Your task to perform on an android device: stop showing notifications on the lock screen Image 0: 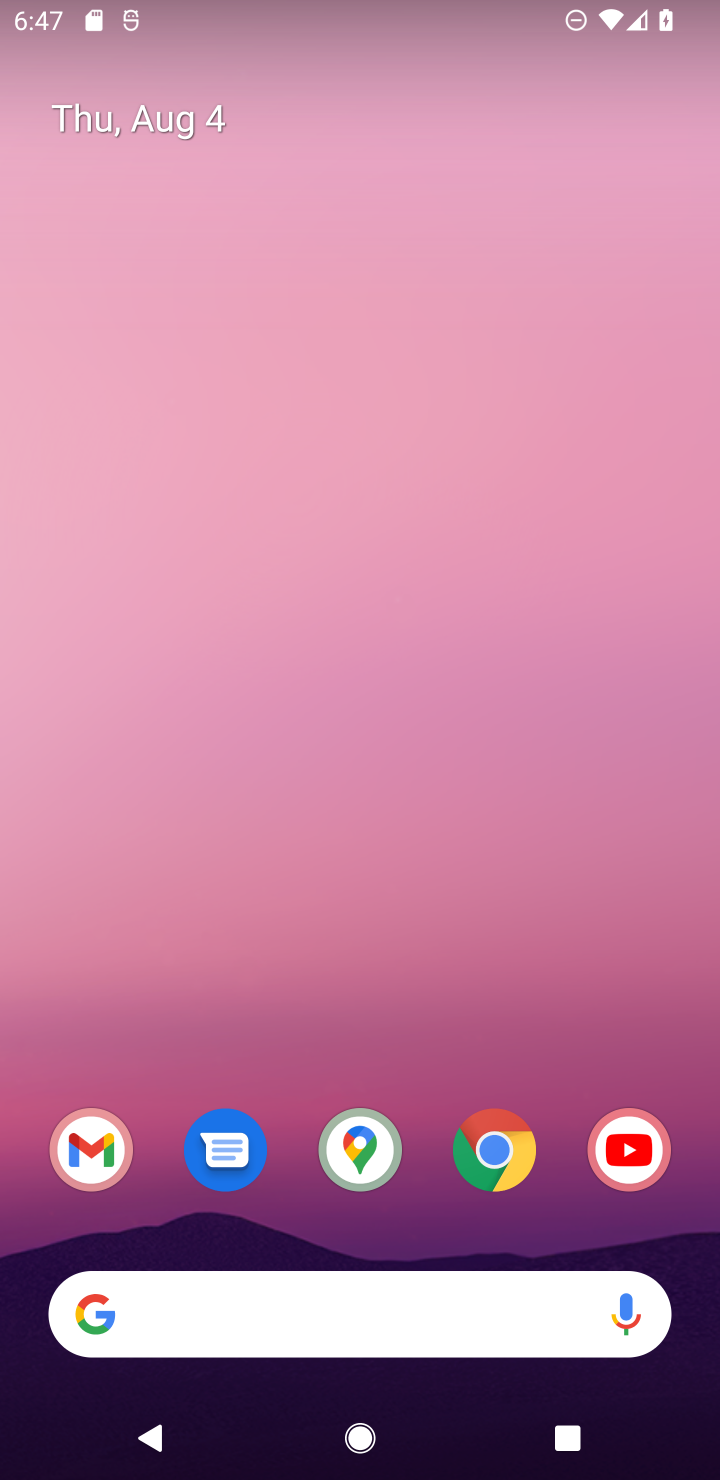
Step 0: drag from (394, 1207) to (390, 5)
Your task to perform on an android device: stop showing notifications on the lock screen Image 1: 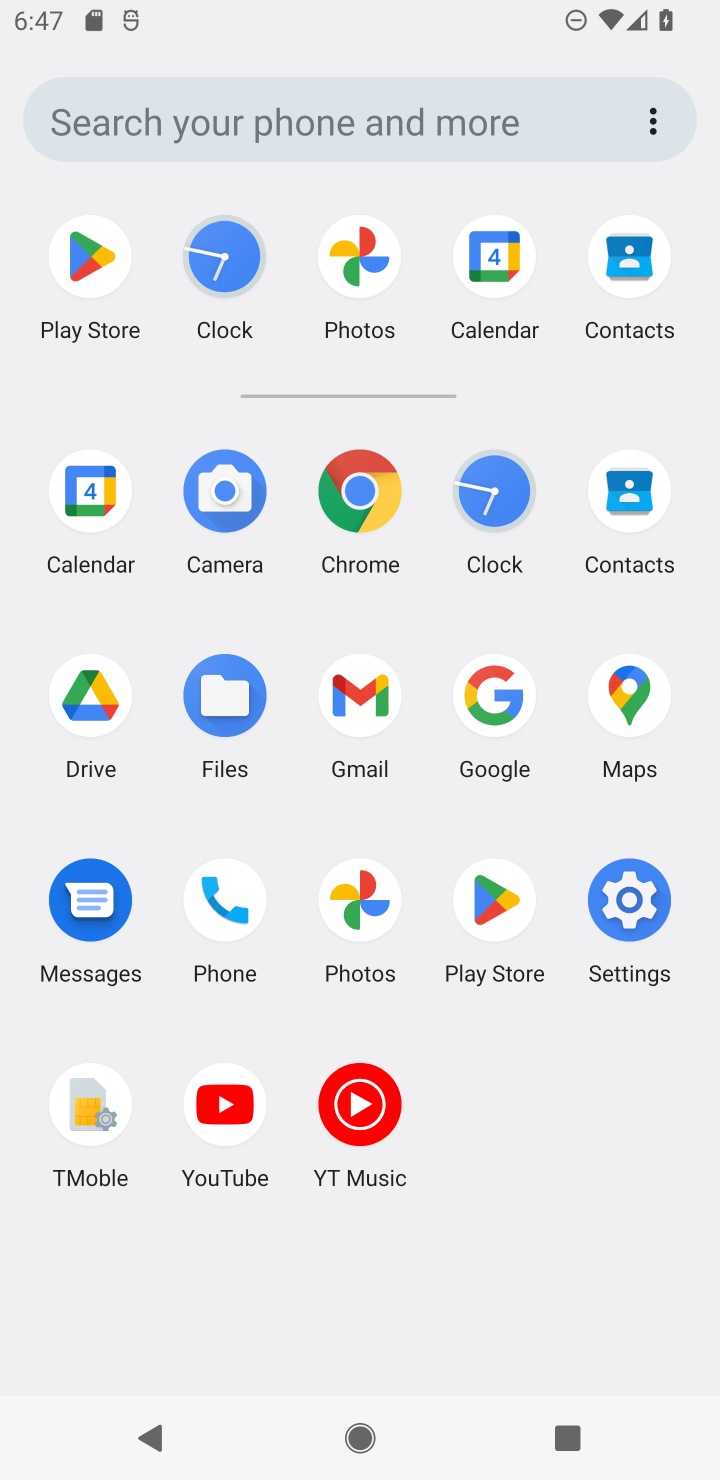
Step 1: click (632, 902)
Your task to perform on an android device: stop showing notifications on the lock screen Image 2: 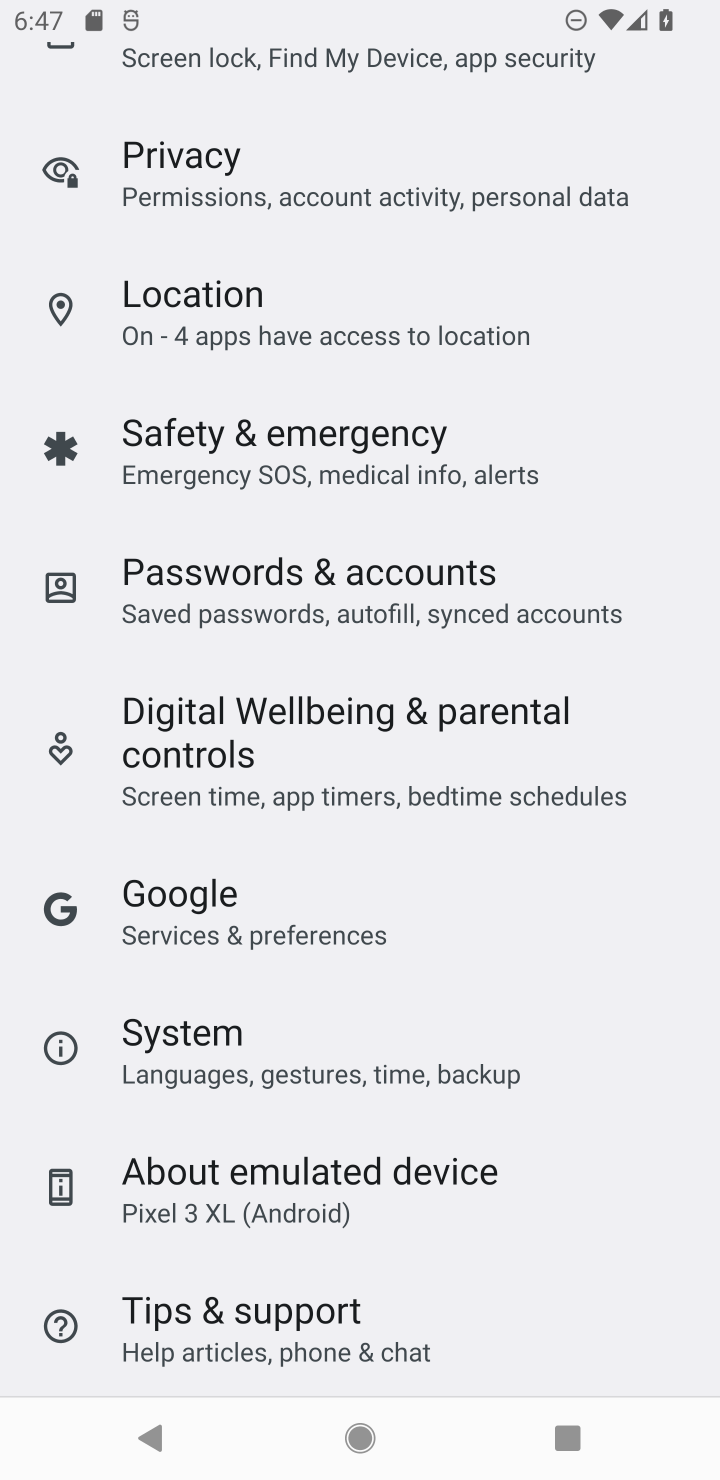
Step 2: drag from (332, 250) to (322, 1384)
Your task to perform on an android device: stop showing notifications on the lock screen Image 3: 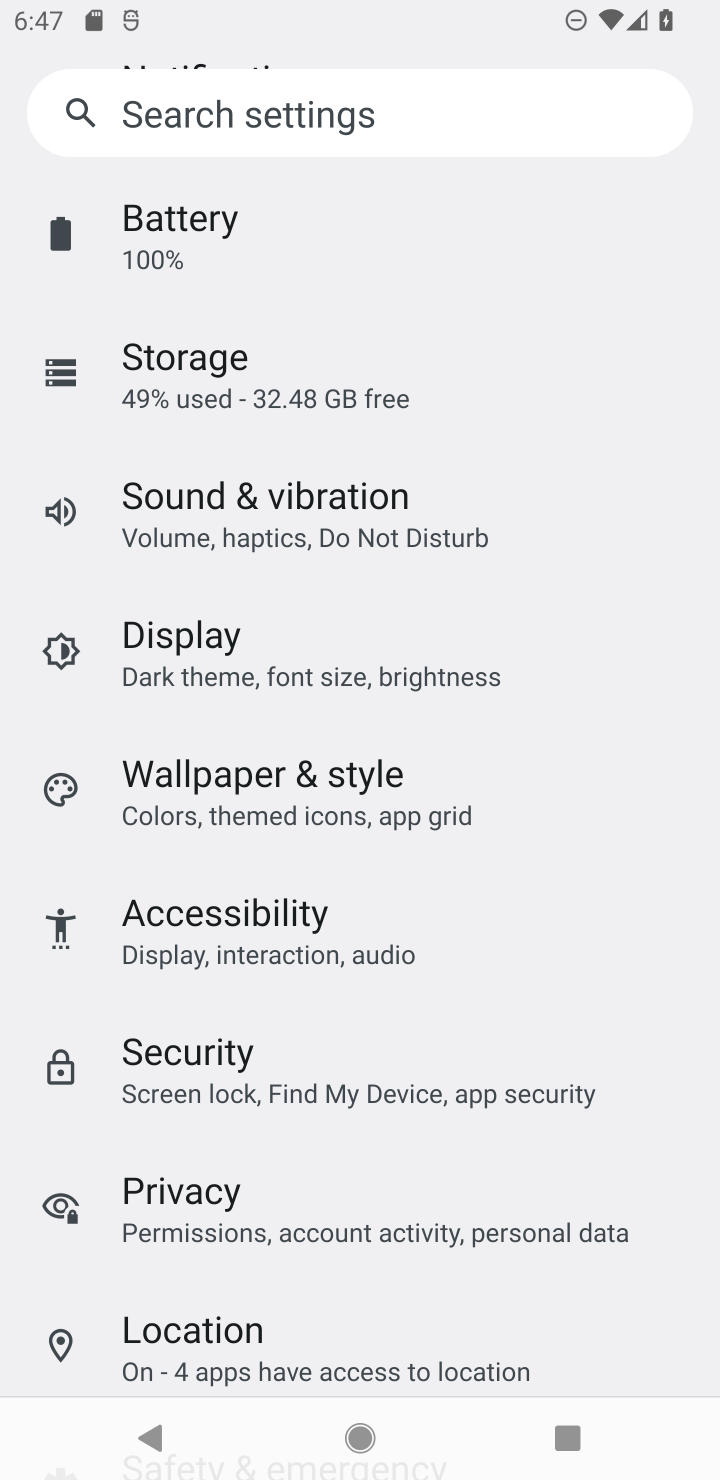
Step 3: drag from (367, 380) to (415, 1290)
Your task to perform on an android device: stop showing notifications on the lock screen Image 4: 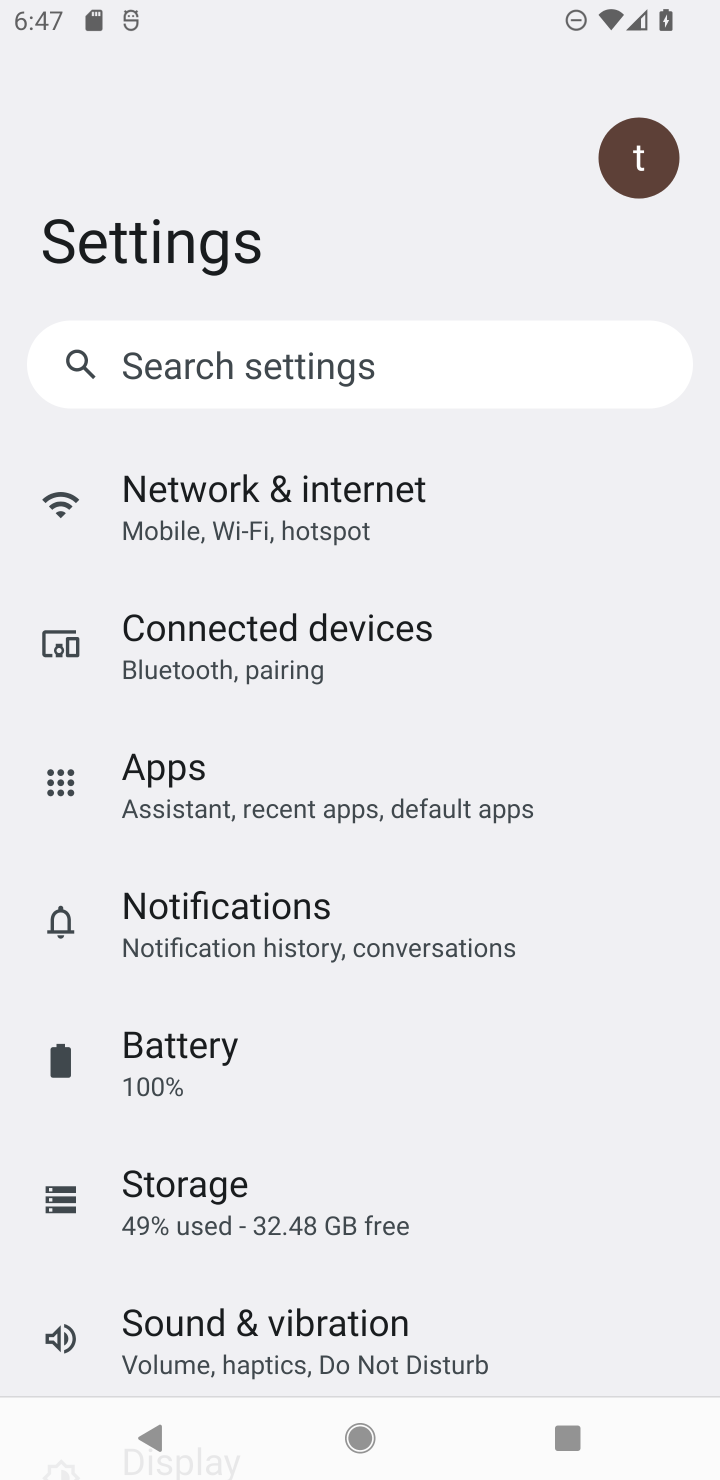
Step 4: click (368, 942)
Your task to perform on an android device: stop showing notifications on the lock screen Image 5: 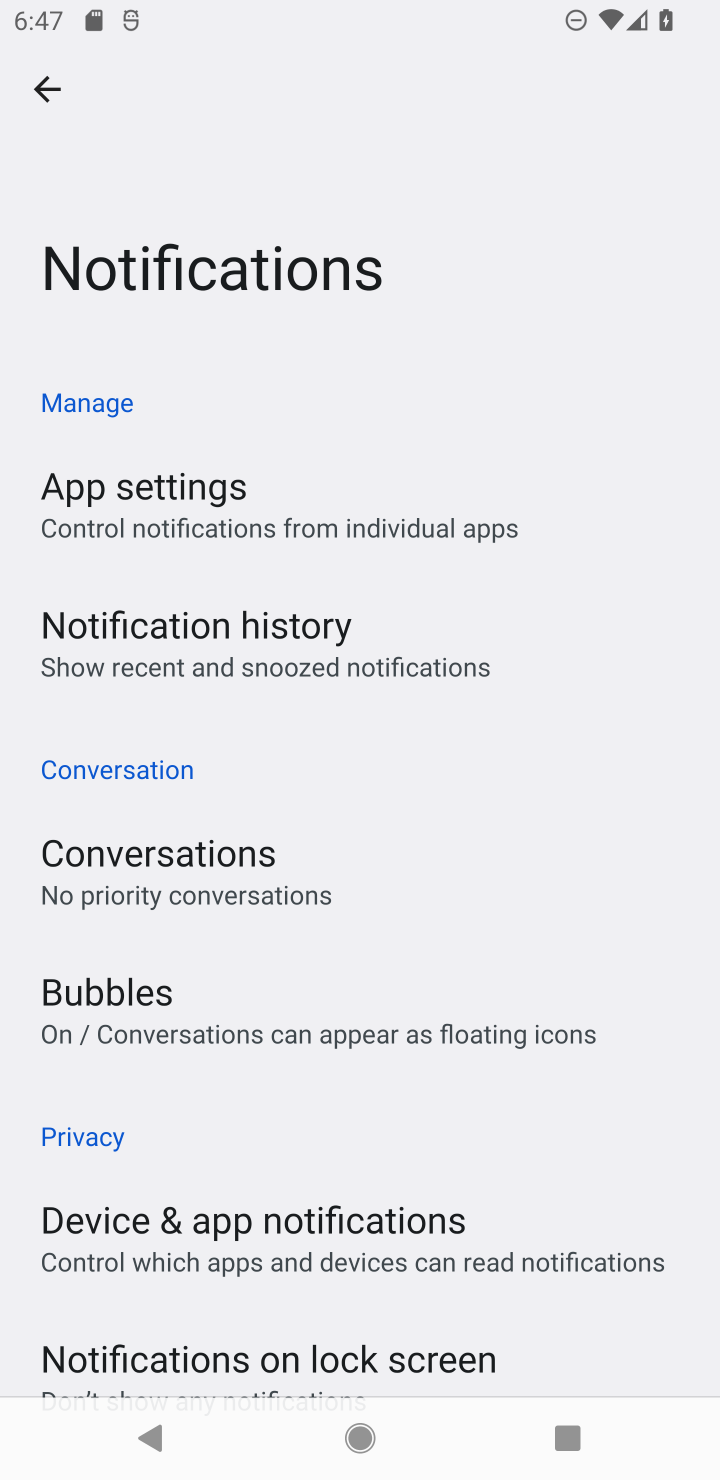
Step 5: drag from (436, 1256) to (493, 428)
Your task to perform on an android device: stop showing notifications on the lock screen Image 6: 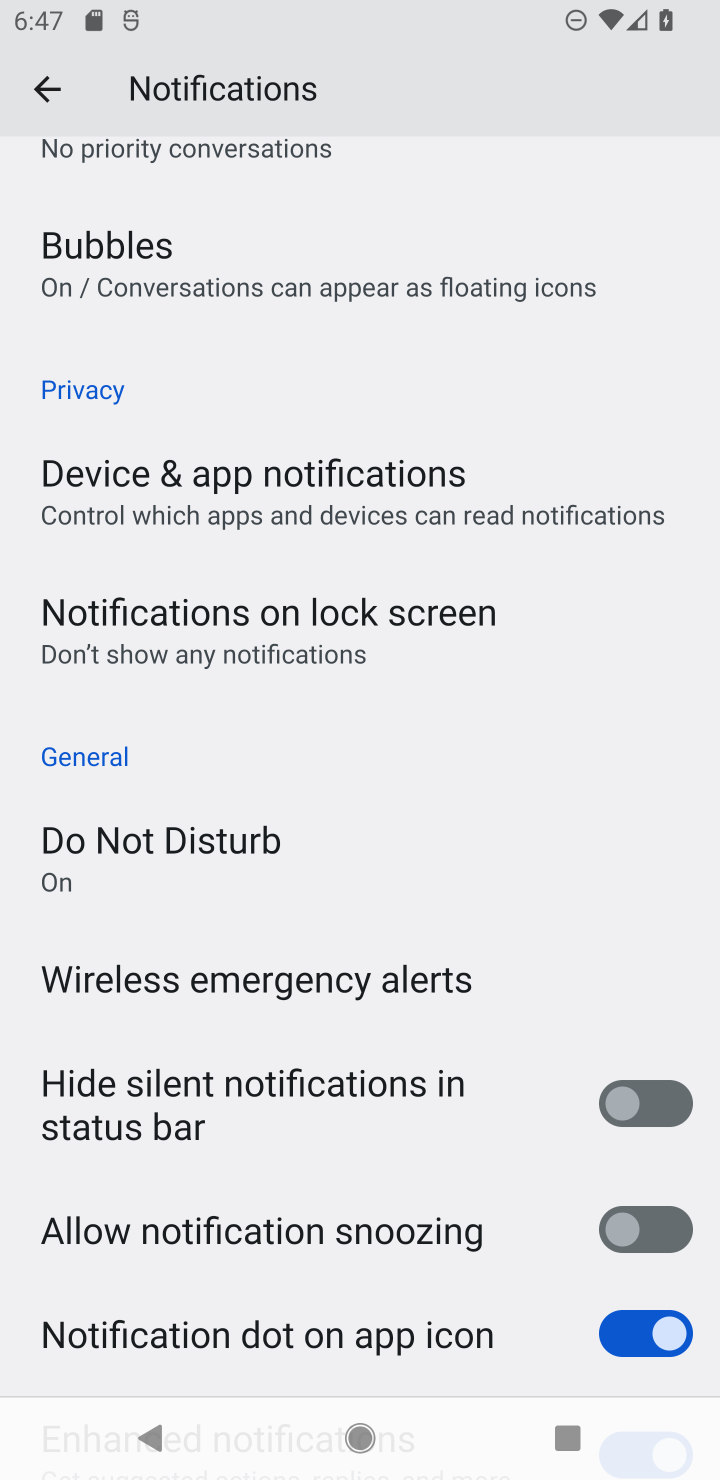
Step 6: click (407, 633)
Your task to perform on an android device: stop showing notifications on the lock screen Image 7: 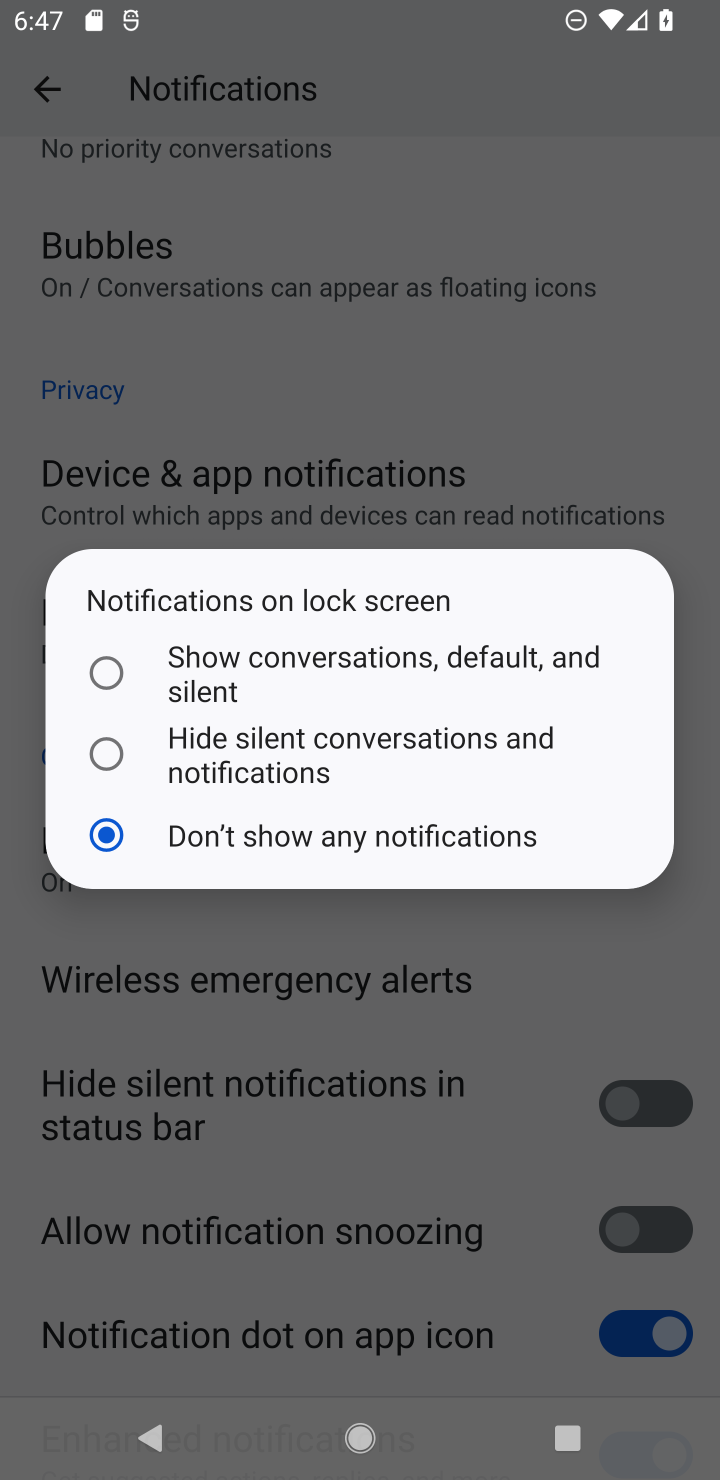
Step 7: task complete